Your task to perform on an android device: Go to CNN.com Image 0: 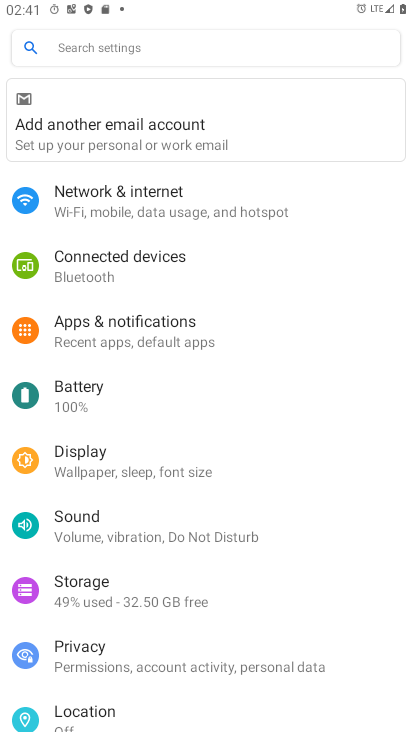
Step 0: press home button
Your task to perform on an android device: Go to CNN.com Image 1: 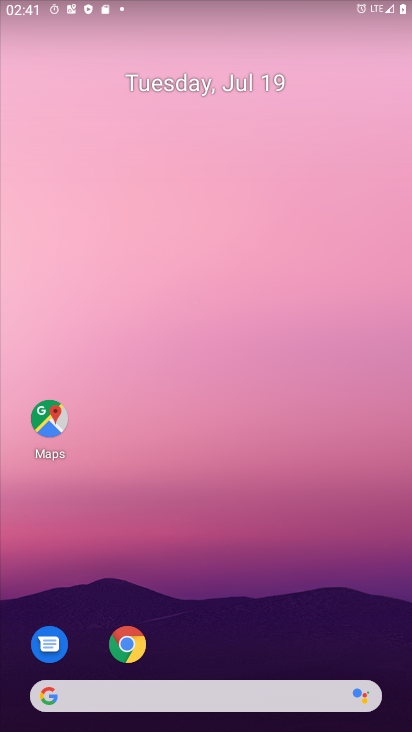
Step 1: drag from (196, 718) to (193, 113)
Your task to perform on an android device: Go to CNN.com Image 2: 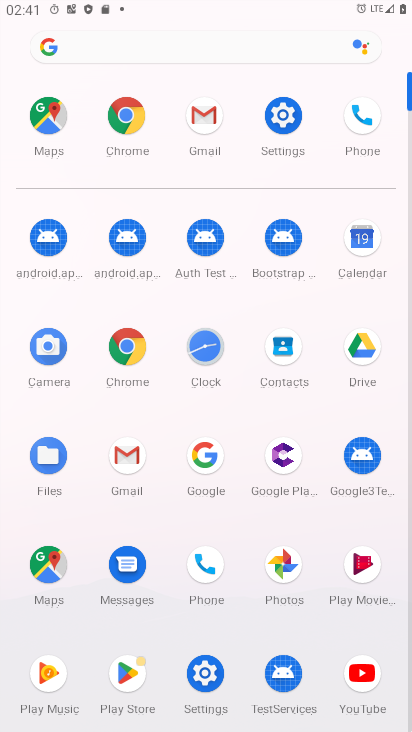
Step 2: click (123, 119)
Your task to perform on an android device: Go to CNN.com Image 3: 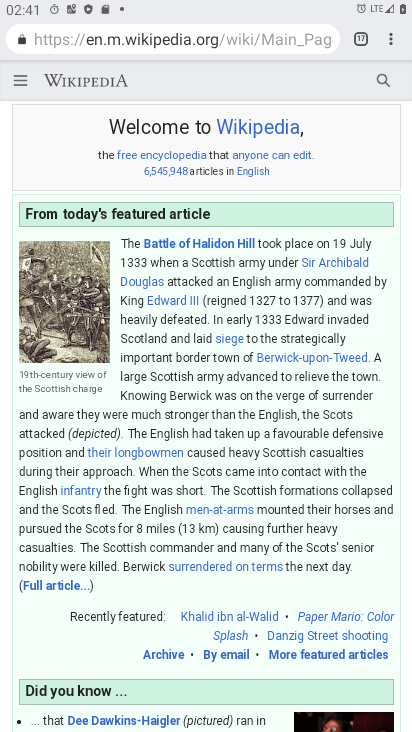
Step 3: click (392, 40)
Your task to perform on an android device: Go to CNN.com Image 4: 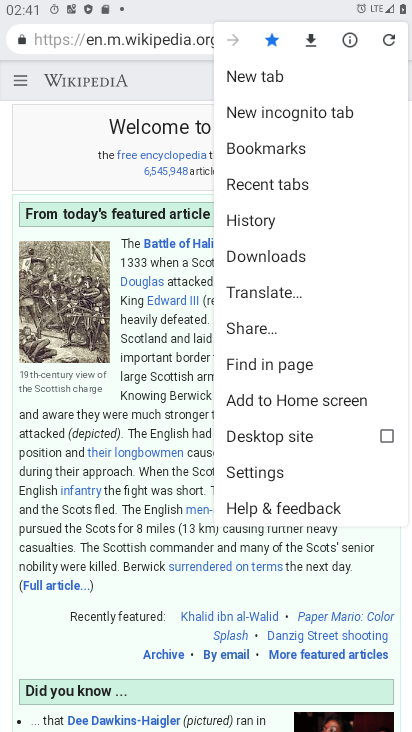
Step 4: click (269, 72)
Your task to perform on an android device: Go to CNN.com Image 5: 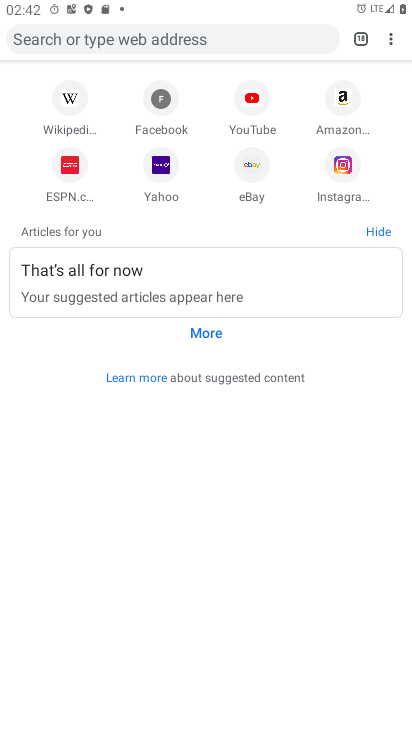
Step 5: click (177, 41)
Your task to perform on an android device: Go to CNN.com Image 6: 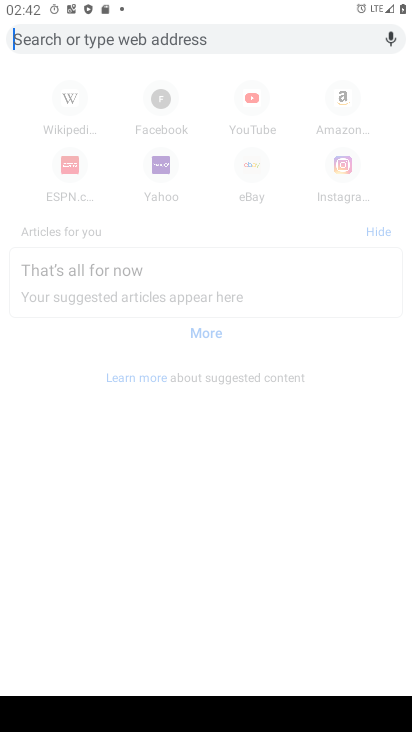
Step 6: type "CNN.com"
Your task to perform on an android device: Go to CNN.com Image 7: 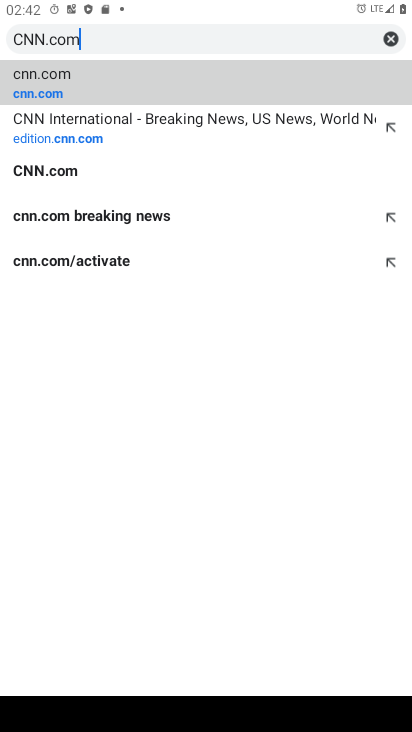
Step 7: click (54, 80)
Your task to perform on an android device: Go to CNN.com Image 8: 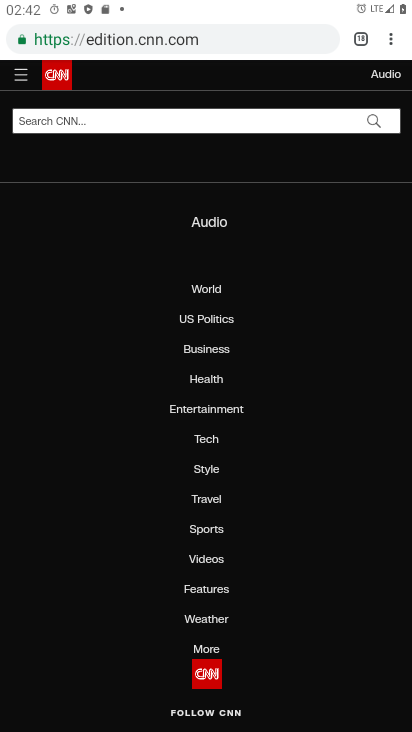
Step 8: task complete